Your task to perform on an android device: Show me recent news Image 0: 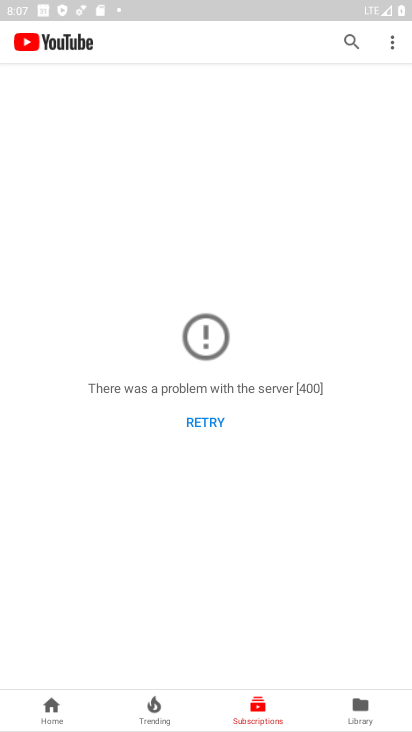
Step 0: press back button
Your task to perform on an android device: Show me recent news Image 1: 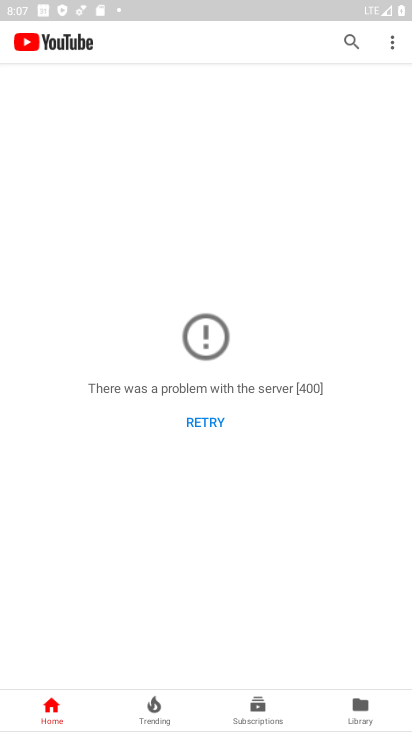
Step 1: press back button
Your task to perform on an android device: Show me recent news Image 2: 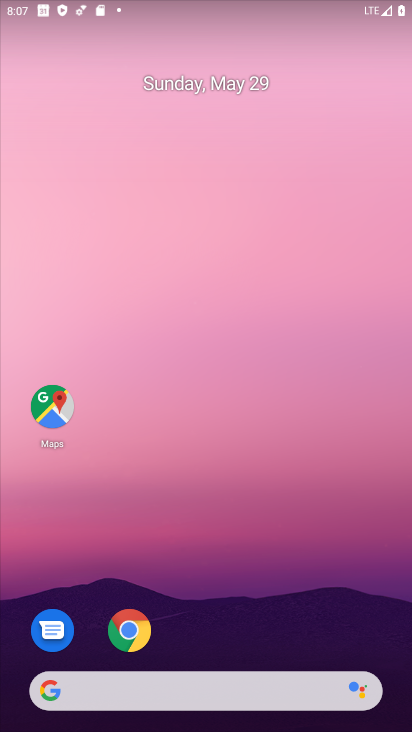
Step 2: click (177, 696)
Your task to perform on an android device: Show me recent news Image 3: 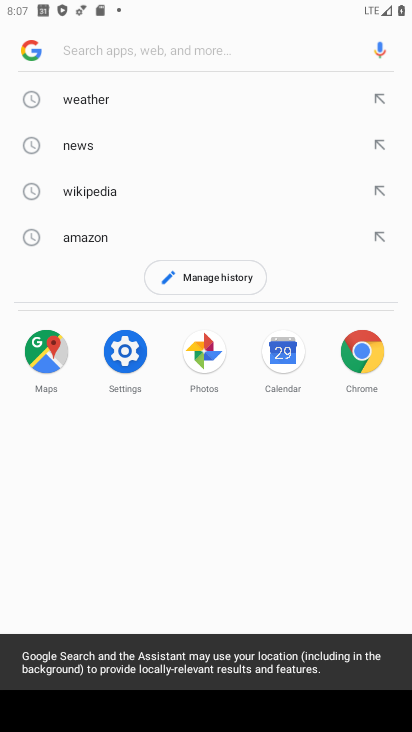
Step 3: click (86, 143)
Your task to perform on an android device: Show me recent news Image 4: 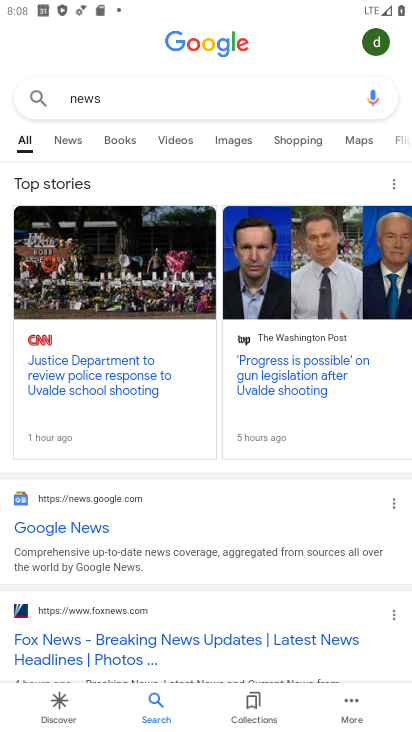
Step 4: click (71, 138)
Your task to perform on an android device: Show me recent news Image 5: 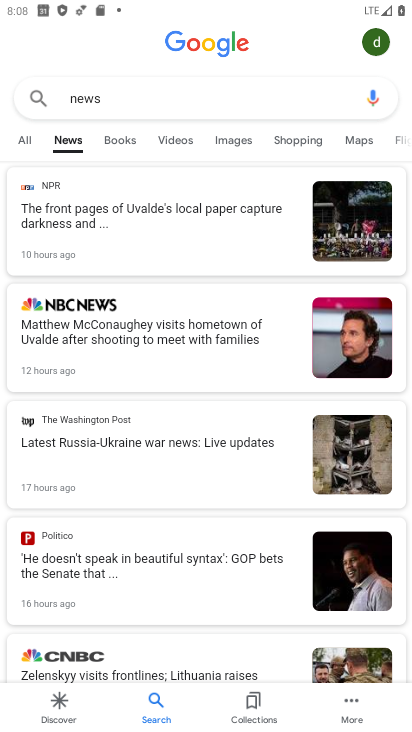
Step 5: task complete